Your task to perform on an android device: Open Youtube and go to "Your channel" Image 0: 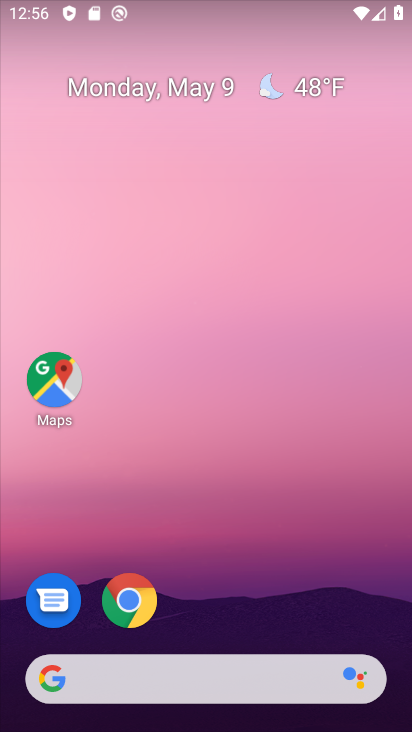
Step 0: click (244, 636)
Your task to perform on an android device: Open Youtube and go to "Your channel" Image 1: 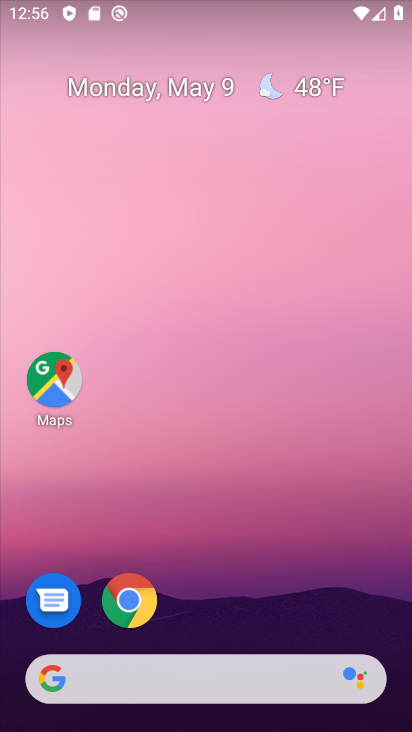
Step 1: drag from (236, 651) to (251, 336)
Your task to perform on an android device: Open Youtube and go to "Your channel" Image 2: 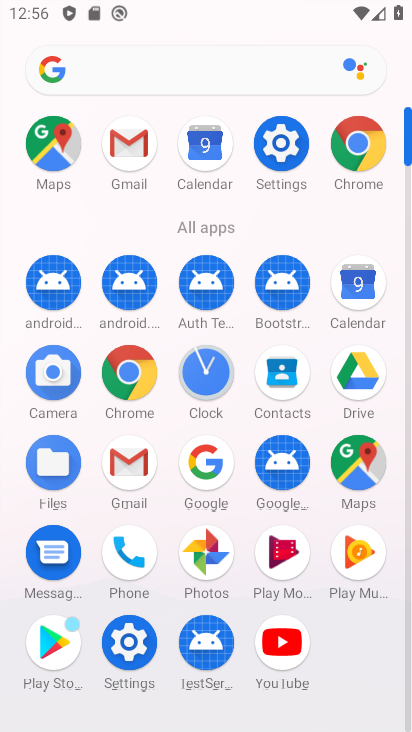
Step 2: click (300, 637)
Your task to perform on an android device: Open Youtube and go to "Your channel" Image 3: 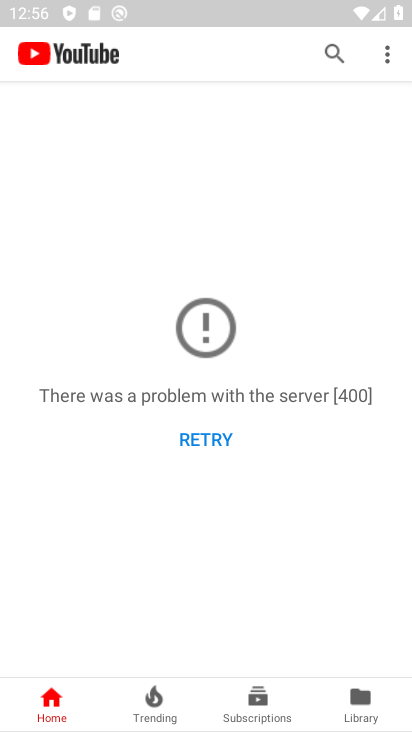
Step 3: click (367, 714)
Your task to perform on an android device: Open Youtube and go to "Your channel" Image 4: 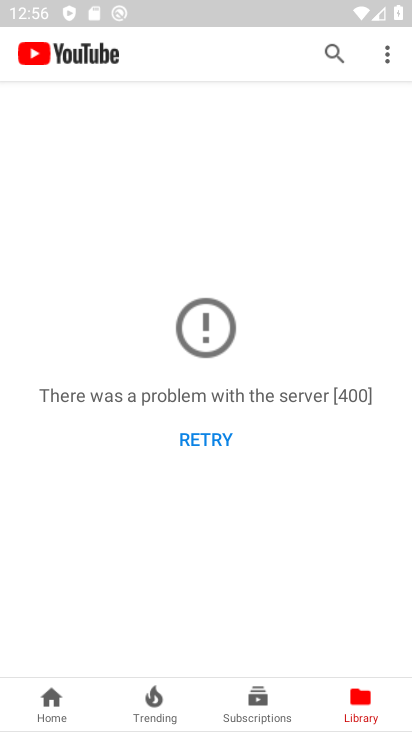
Step 4: task complete